Your task to perform on an android device: turn notification dots off Image 0: 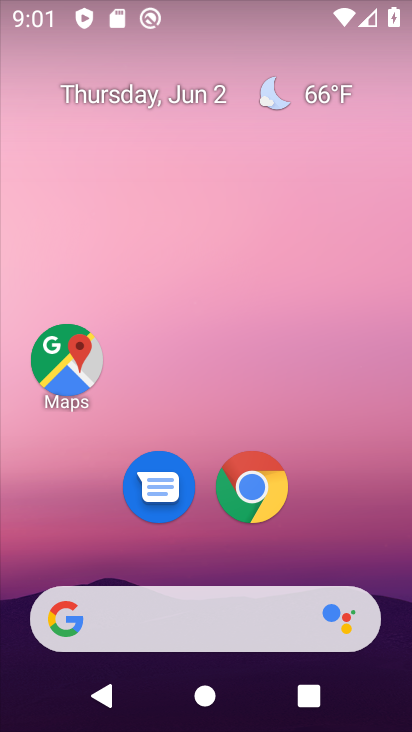
Step 0: drag from (233, 721) to (215, 106)
Your task to perform on an android device: turn notification dots off Image 1: 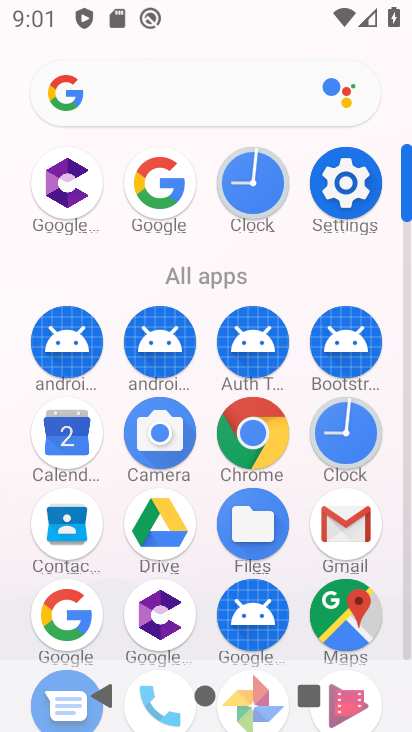
Step 1: click (337, 184)
Your task to perform on an android device: turn notification dots off Image 2: 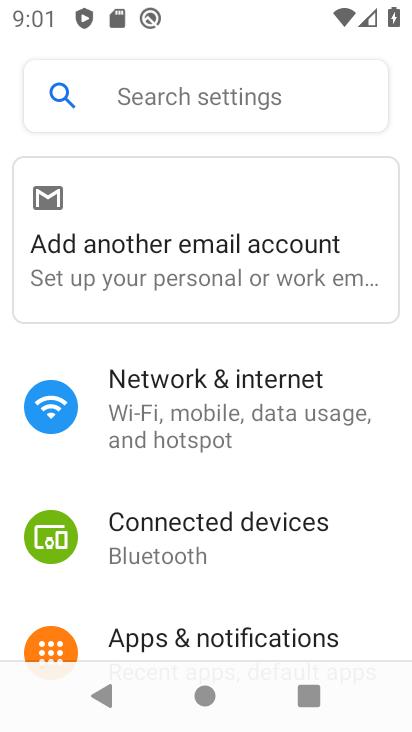
Step 2: drag from (208, 608) to (196, 396)
Your task to perform on an android device: turn notification dots off Image 3: 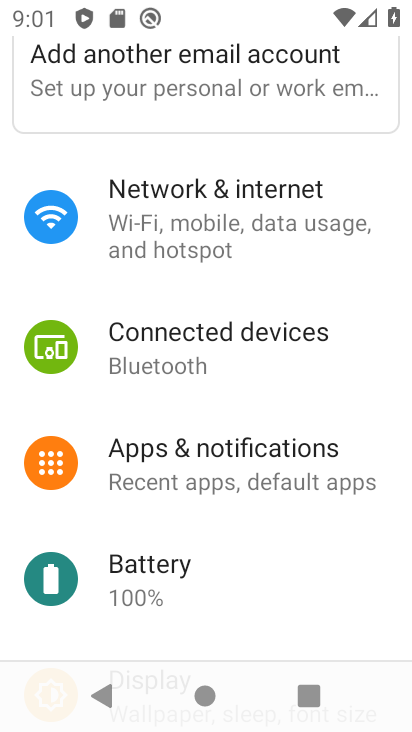
Step 3: click (196, 469)
Your task to perform on an android device: turn notification dots off Image 4: 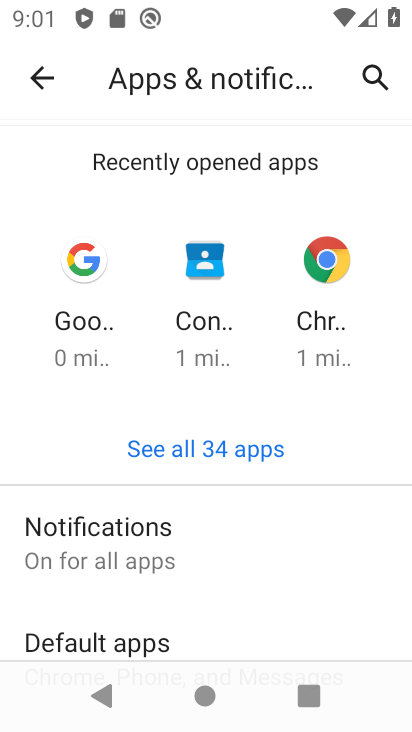
Step 4: drag from (168, 655) to (167, 430)
Your task to perform on an android device: turn notification dots off Image 5: 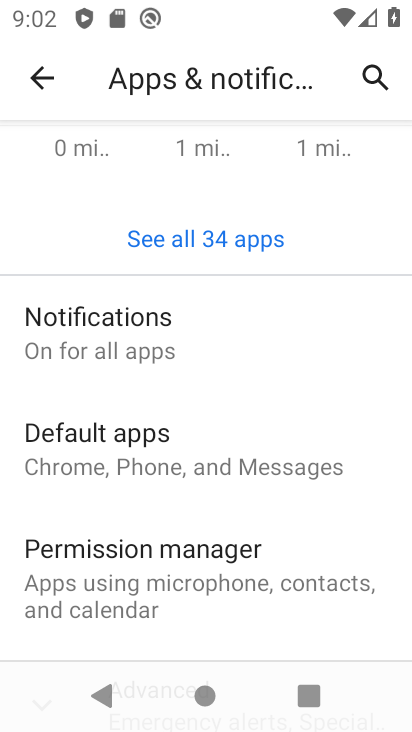
Step 5: click (105, 341)
Your task to perform on an android device: turn notification dots off Image 6: 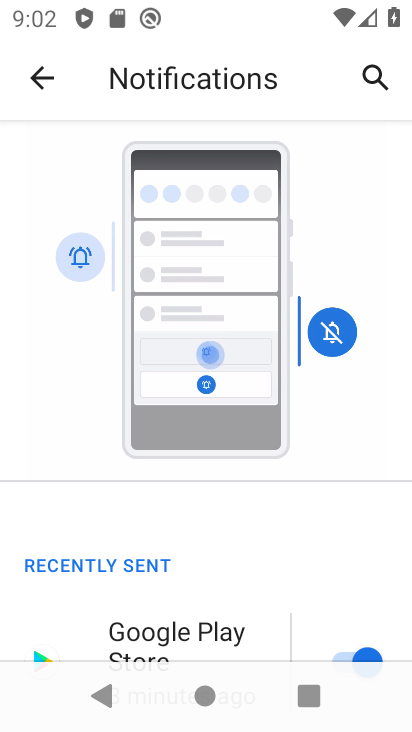
Step 6: drag from (223, 643) to (226, 315)
Your task to perform on an android device: turn notification dots off Image 7: 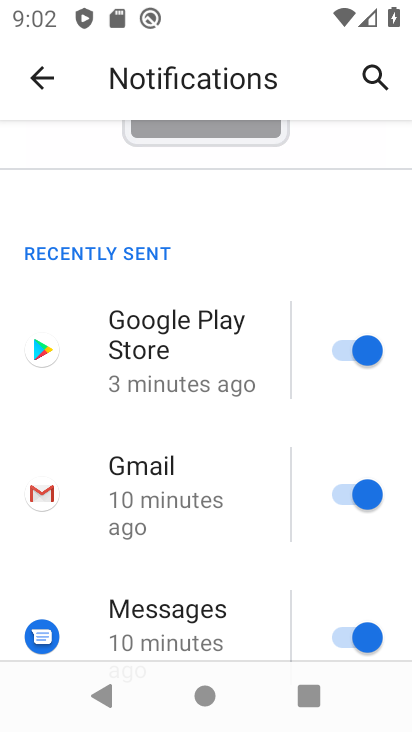
Step 7: drag from (252, 635) to (252, 366)
Your task to perform on an android device: turn notification dots off Image 8: 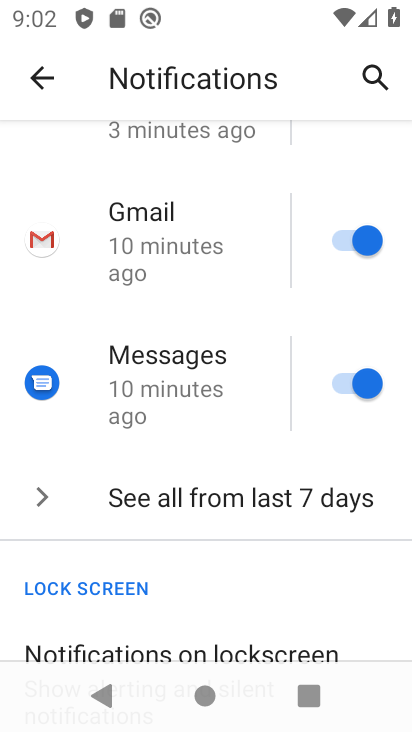
Step 8: drag from (256, 645) to (259, 244)
Your task to perform on an android device: turn notification dots off Image 9: 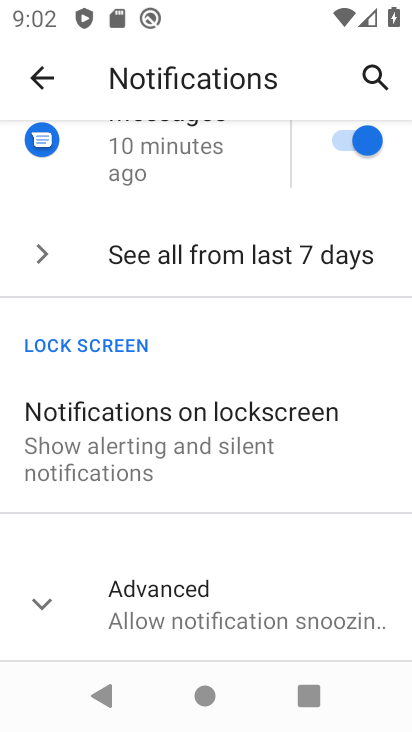
Step 9: click (146, 616)
Your task to perform on an android device: turn notification dots off Image 10: 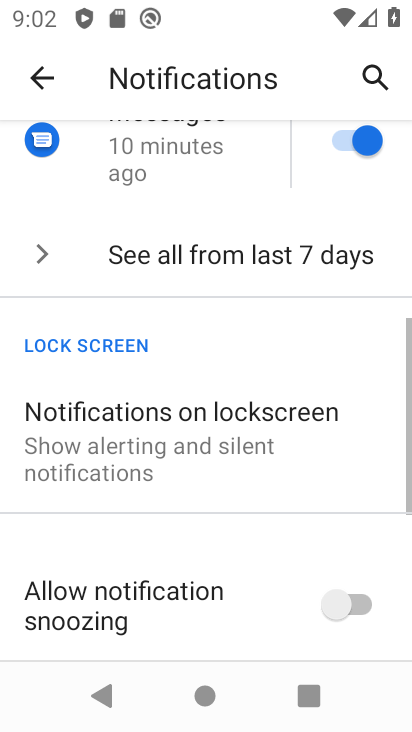
Step 10: drag from (245, 620) to (234, 412)
Your task to perform on an android device: turn notification dots off Image 11: 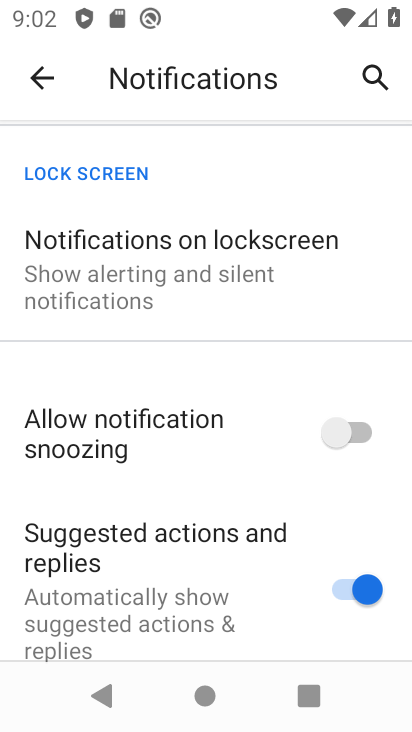
Step 11: drag from (202, 621) to (177, 282)
Your task to perform on an android device: turn notification dots off Image 12: 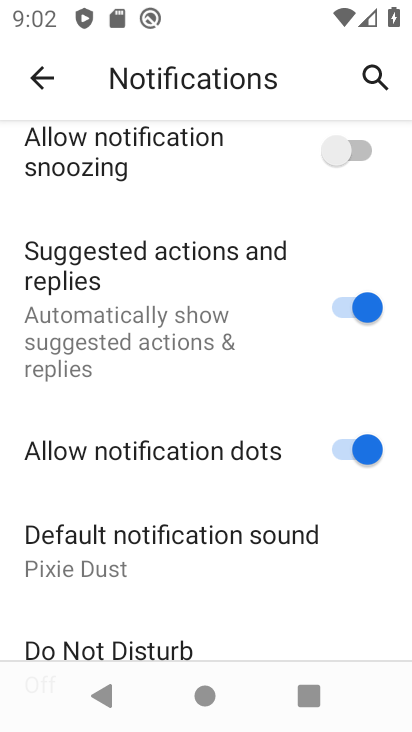
Step 12: click (338, 453)
Your task to perform on an android device: turn notification dots off Image 13: 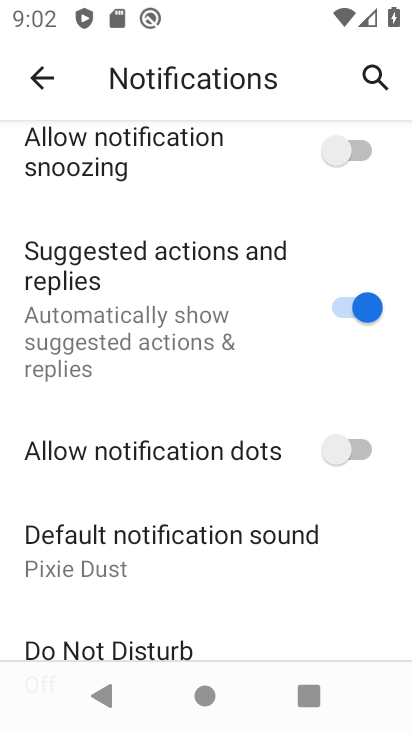
Step 13: task complete